Your task to perform on an android device: Add "apple airpods pro" to the cart on bestbuy.com Image 0: 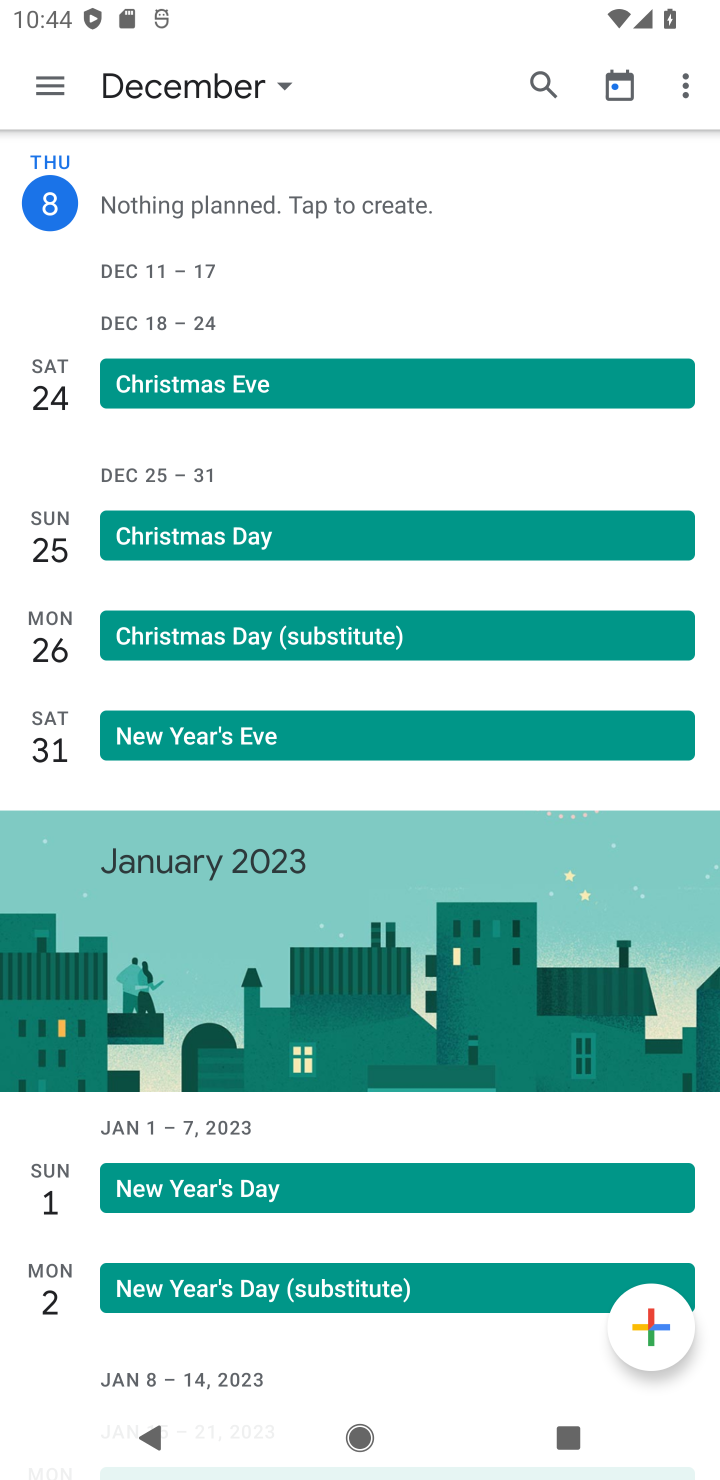
Step 0: press home button
Your task to perform on an android device: Add "apple airpods pro" to the cart on bestbuy.com Image 1: 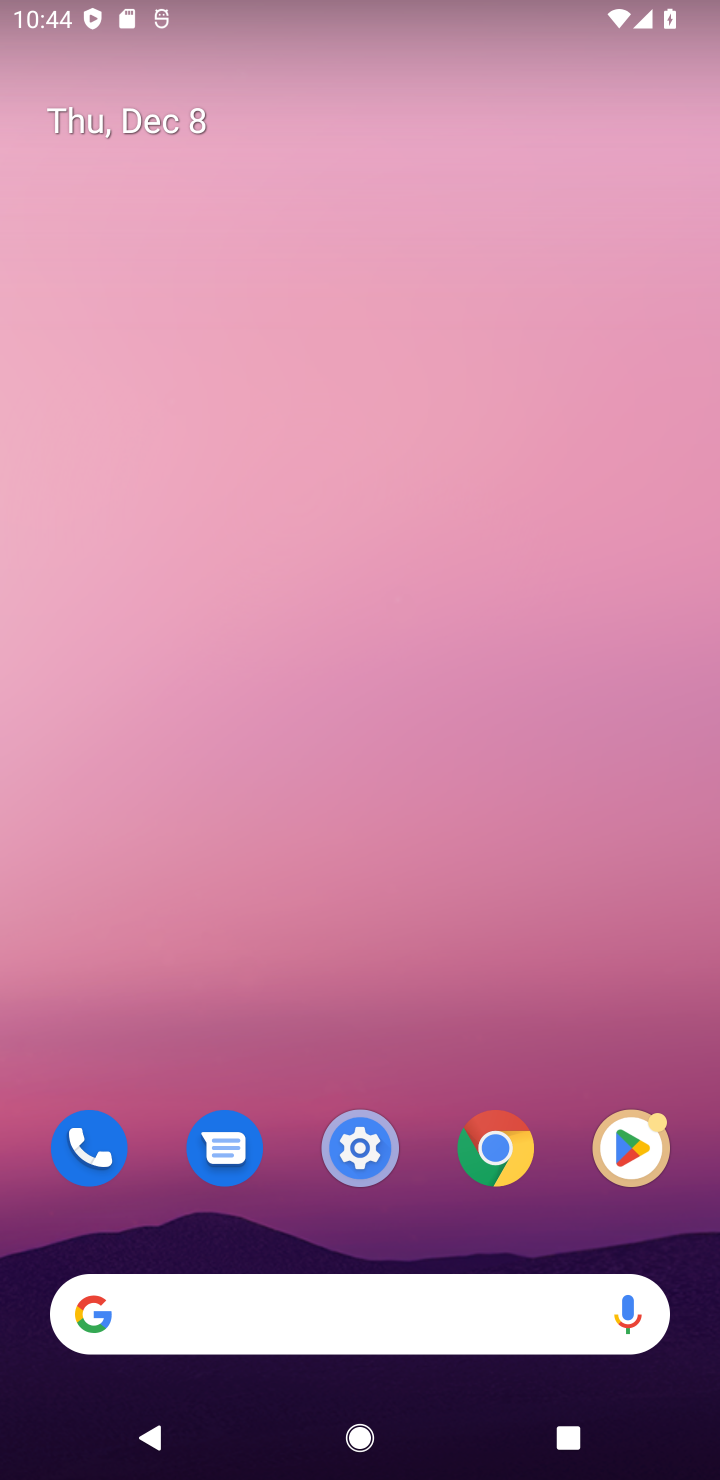
Step 1: click (310, 1312)
Your task to perform on an android device: Add "apple airpods pro" to the cart on bestbuy.com Image 2: 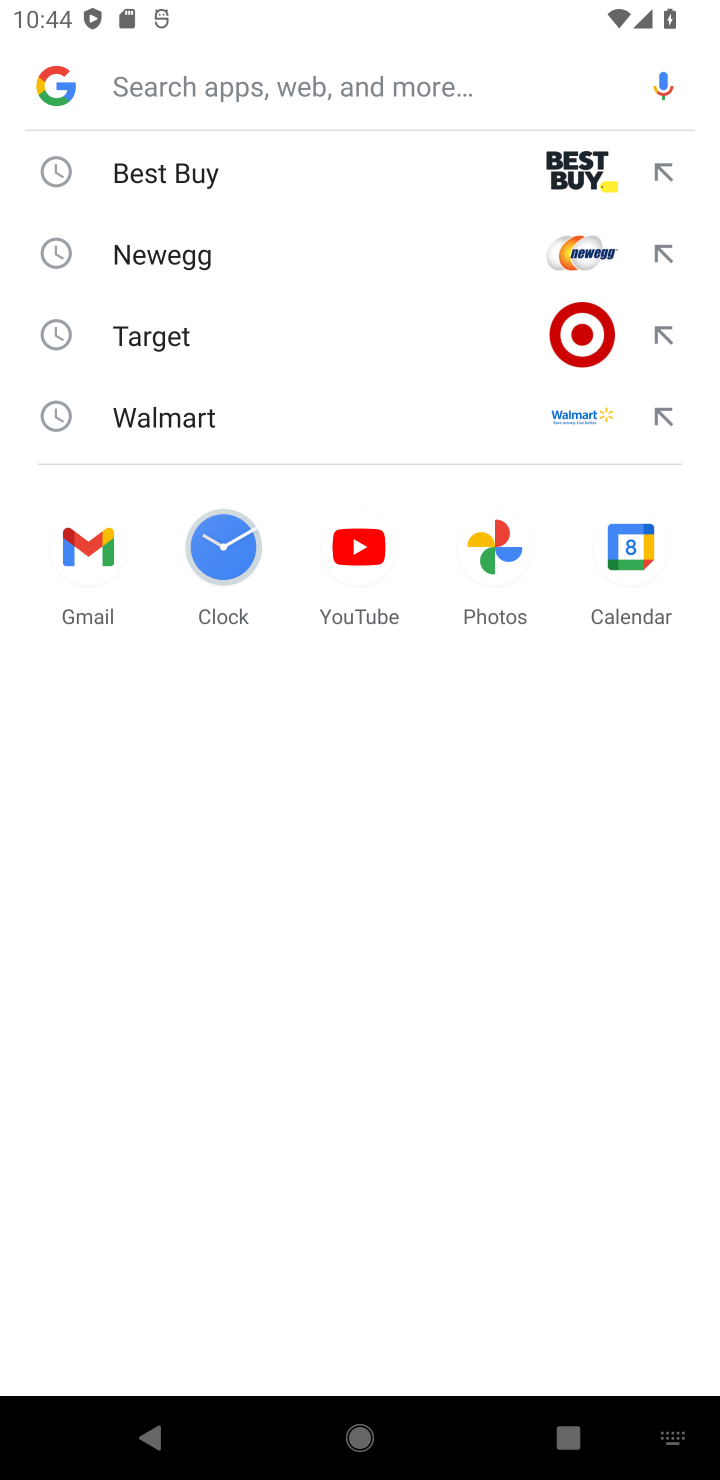
Step 2: click (133, 166)
Your task to perform on an android device: Add "apple airpods pro" to the cart on bestbuy.com Image 3: 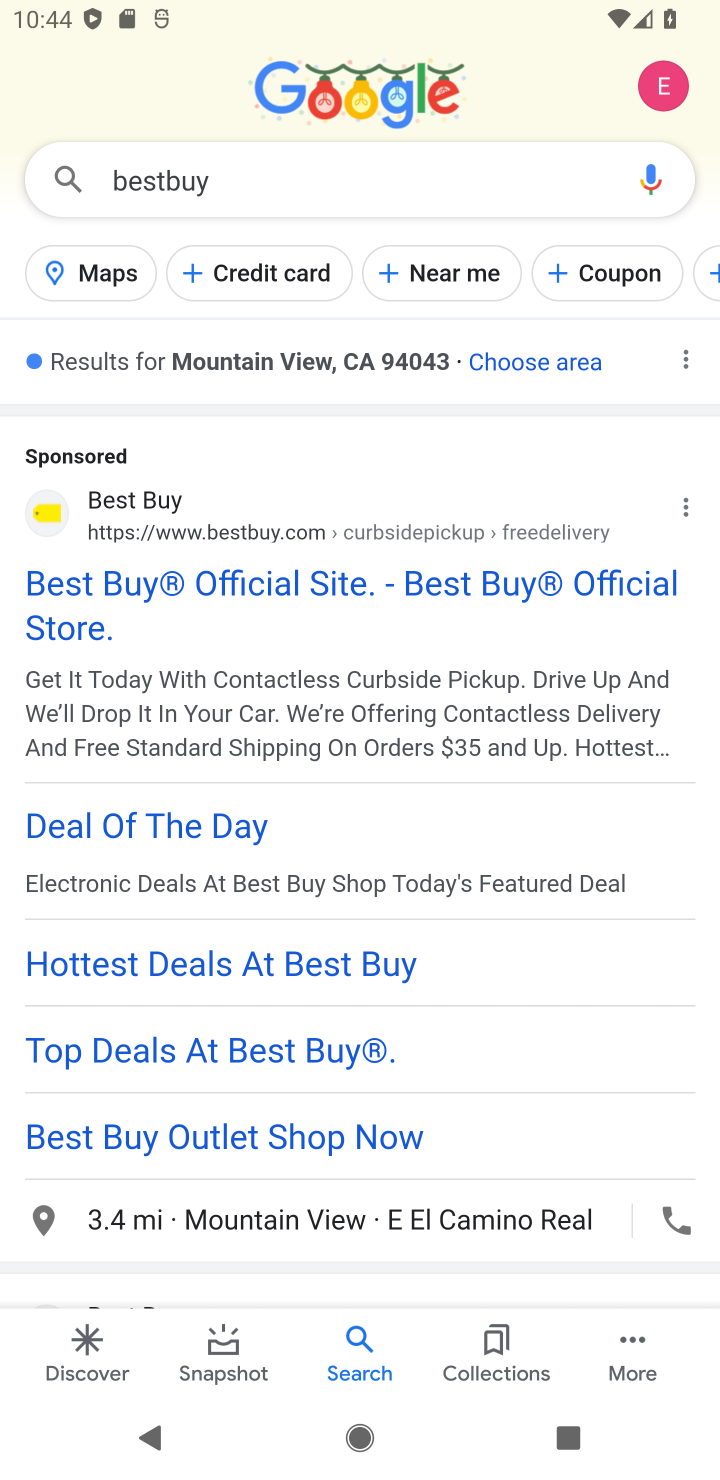
Step 3: click (140, 490)
Your task to perform on an android device: Add "apple airpods pro" to the cart on bestbuy.com Image 4: 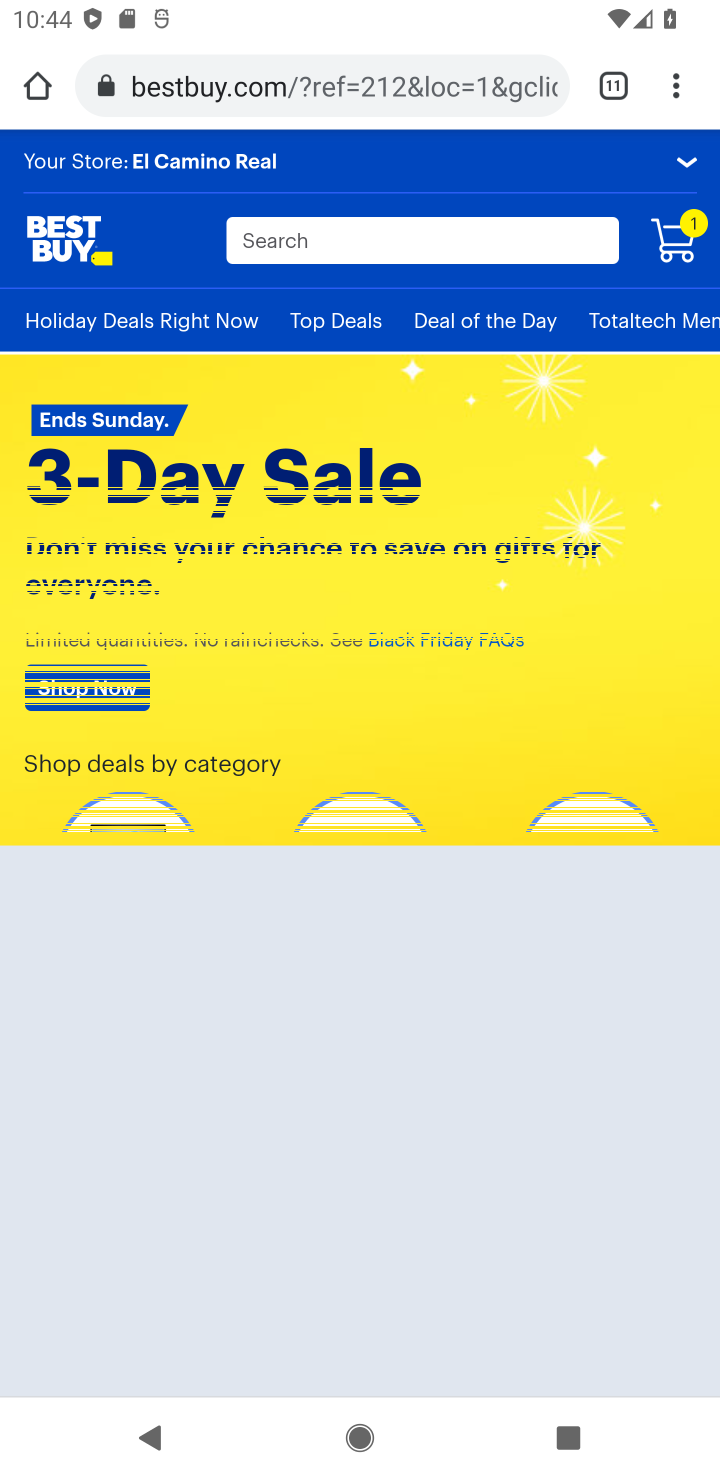
Step 4: type ""
Your task to perform on an android device: Add "apple airpods pro" to the cart on bestbuy.com Image 5: 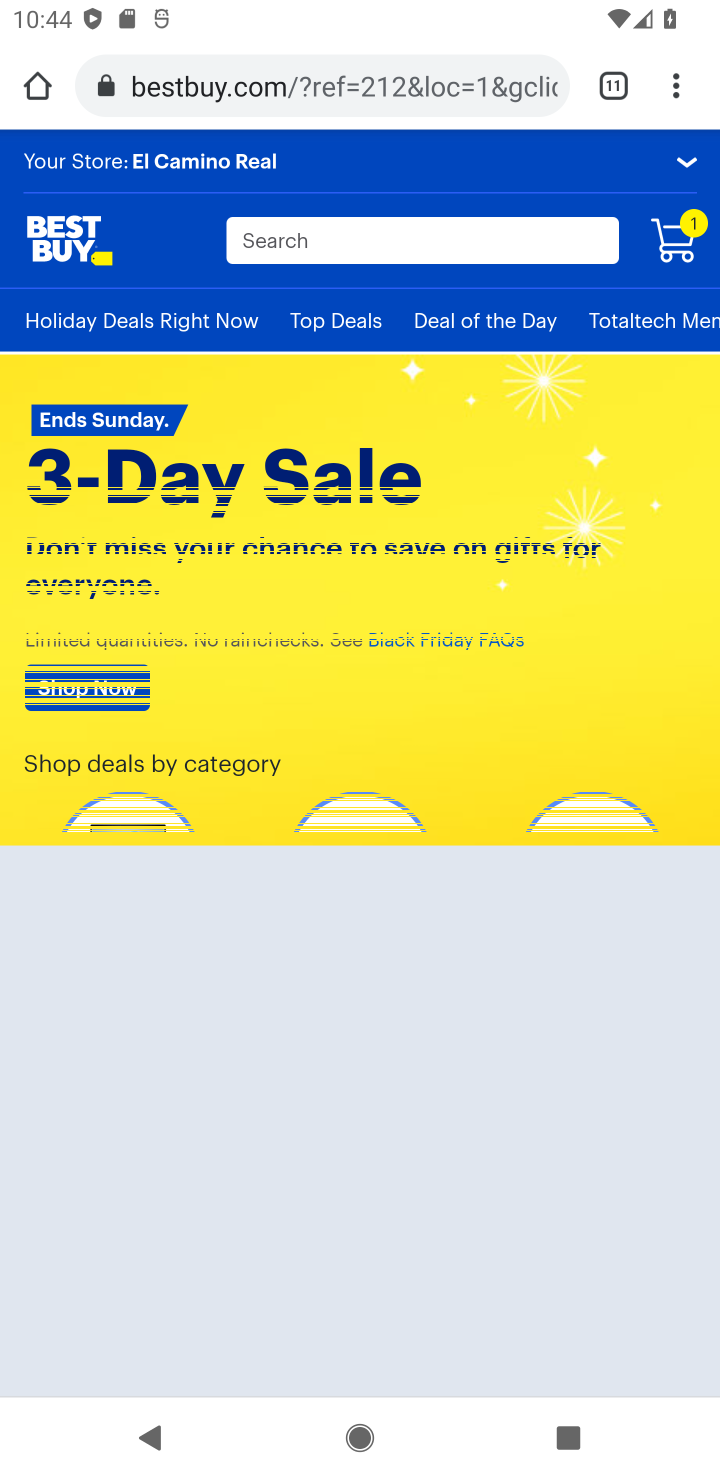
Step 5: click (358, 232)
Your task to perform on an android device: Add "apple airpods pro" to the cart on bestbuy.com Image 6: 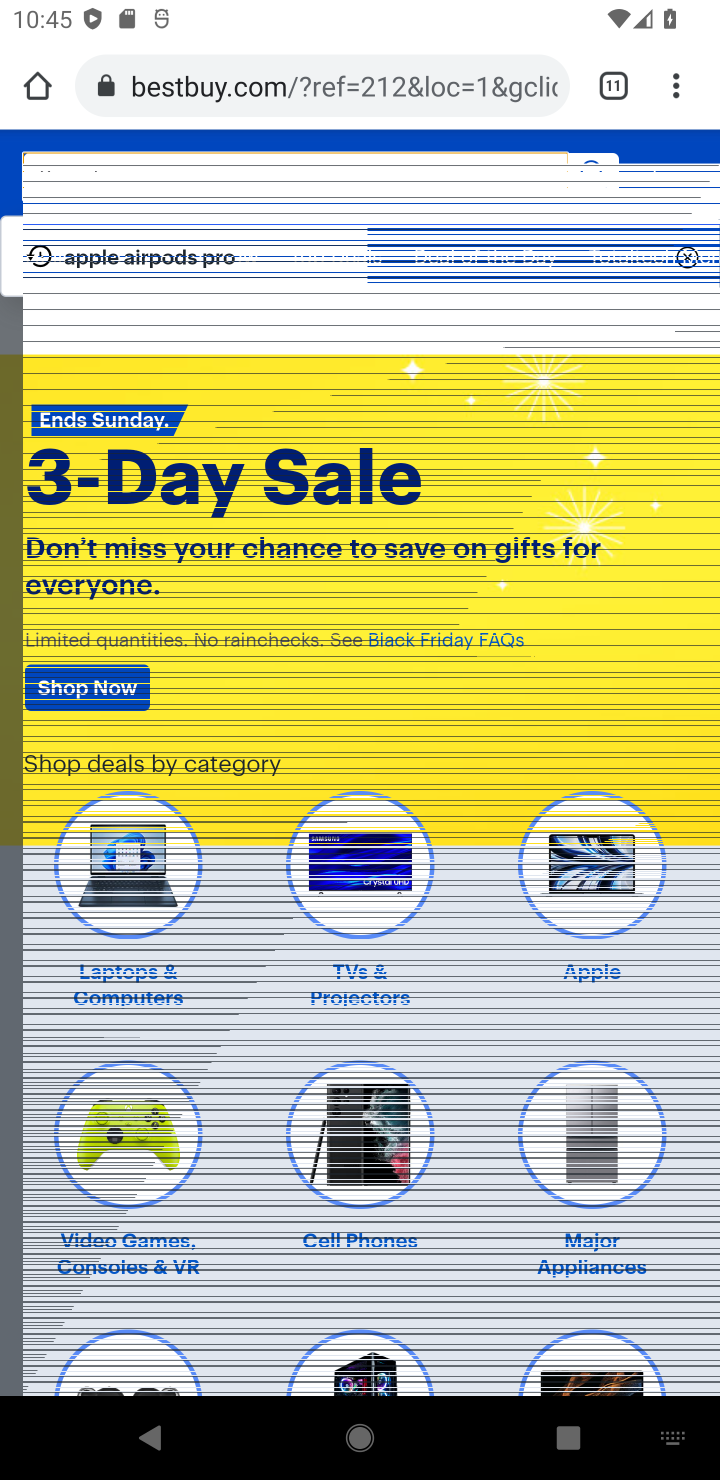
Step 6: type "apple airpods pro"
Your task to perform on an android device: Add "apple airpods pro" to the cart on bestbuy.com Image 7: 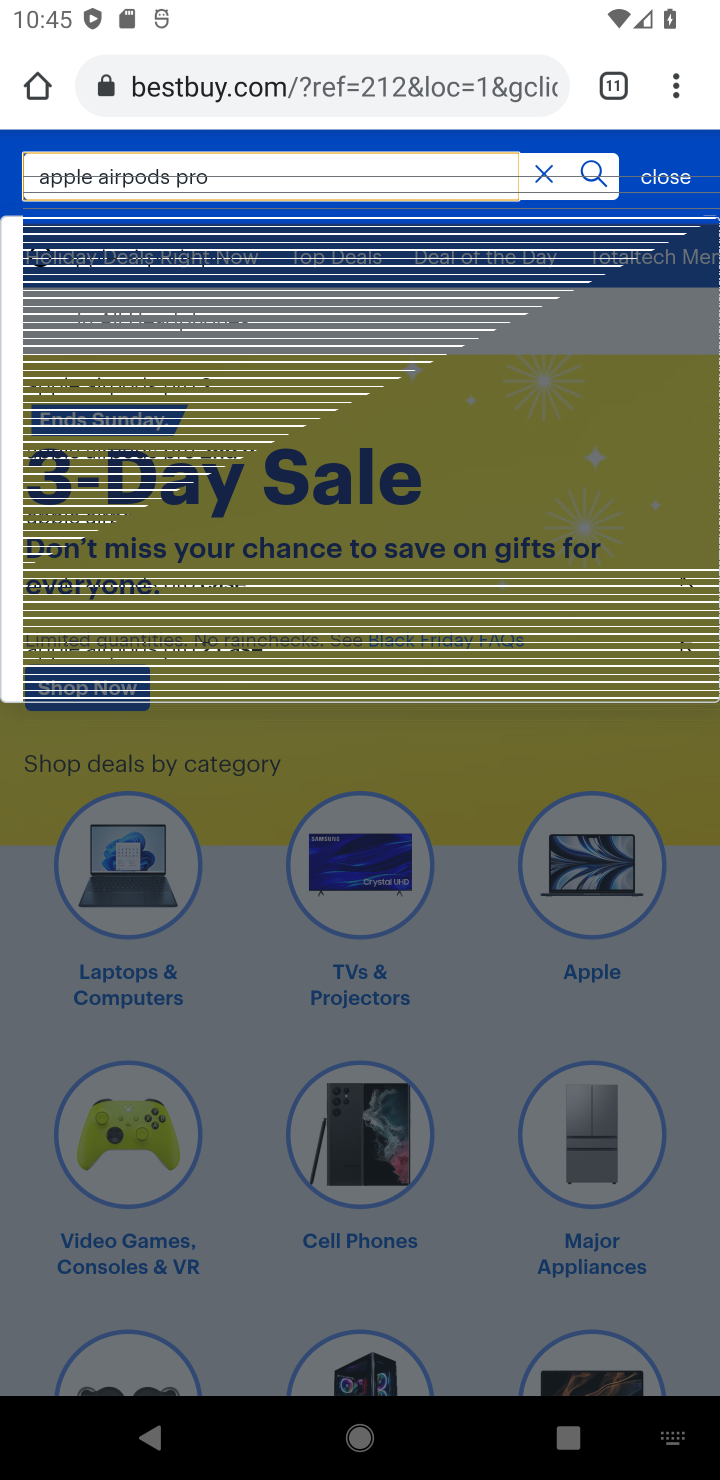
Step 7: click (581, 162)
Your task to perform on an android device: Add "apple airpods pro" to the cart on bestbuy.com Image 8: 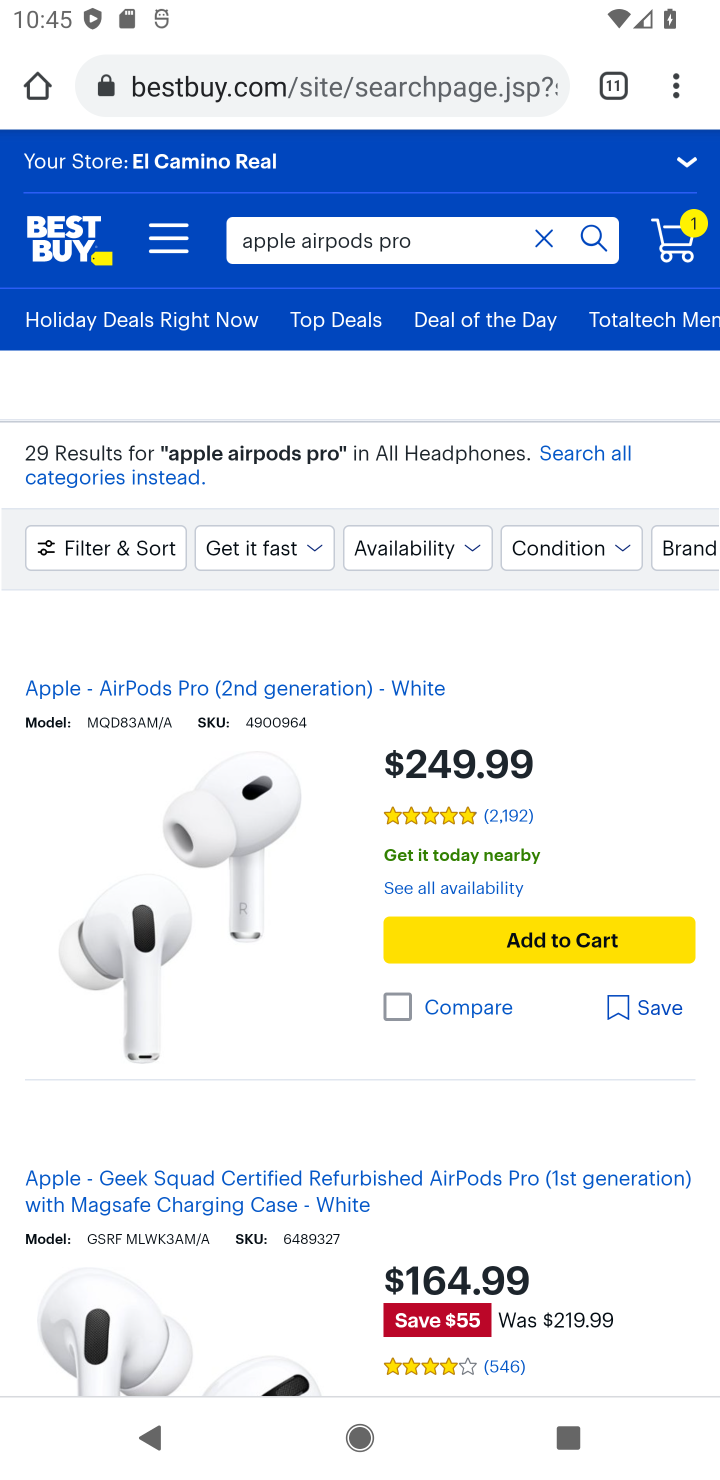
Step 8: click (535, 934)
Your task to perform on an android device: Add "apple airpods pro" to the cart on bestbuy.com Image 9: 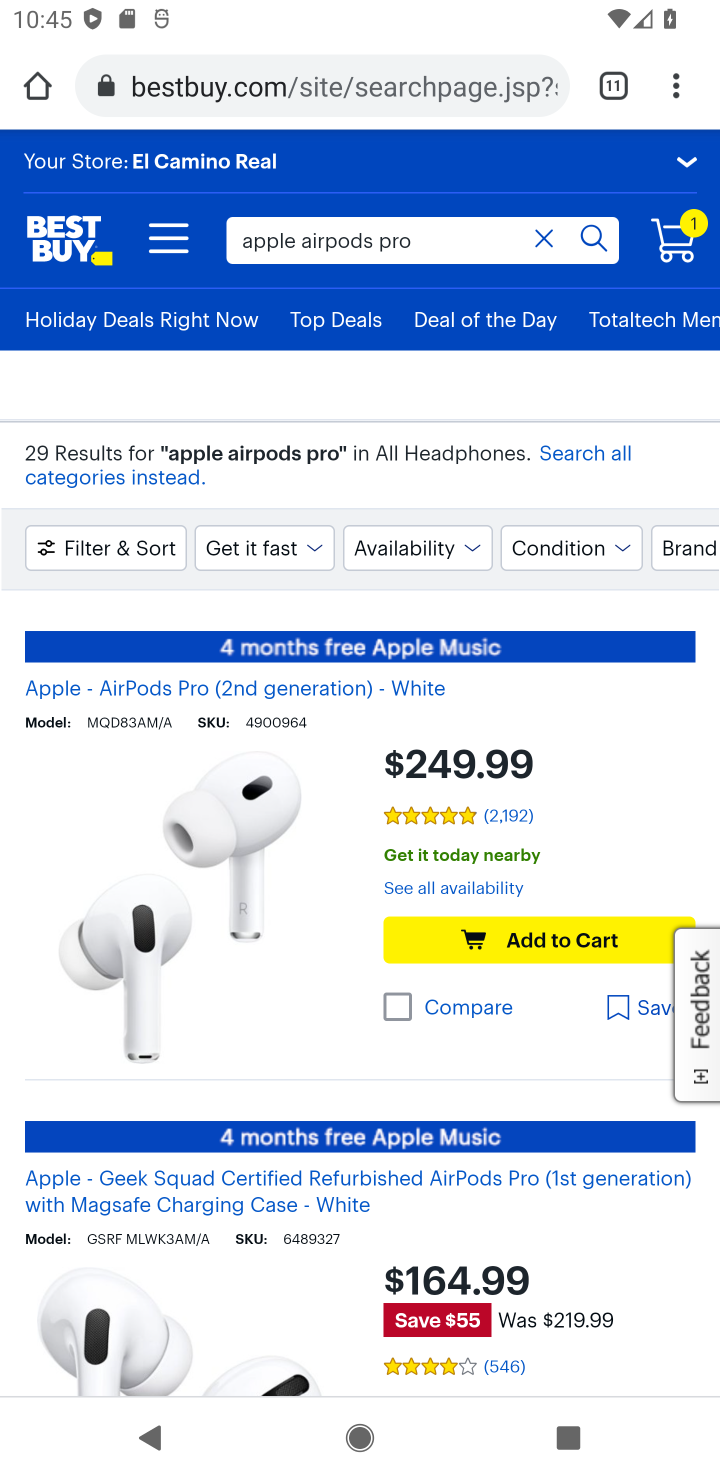
Step 9: click (564, 937)
Your task to perform on an android device: Add "apple airpods pro" to the cart on bestbuy.com Image 10: 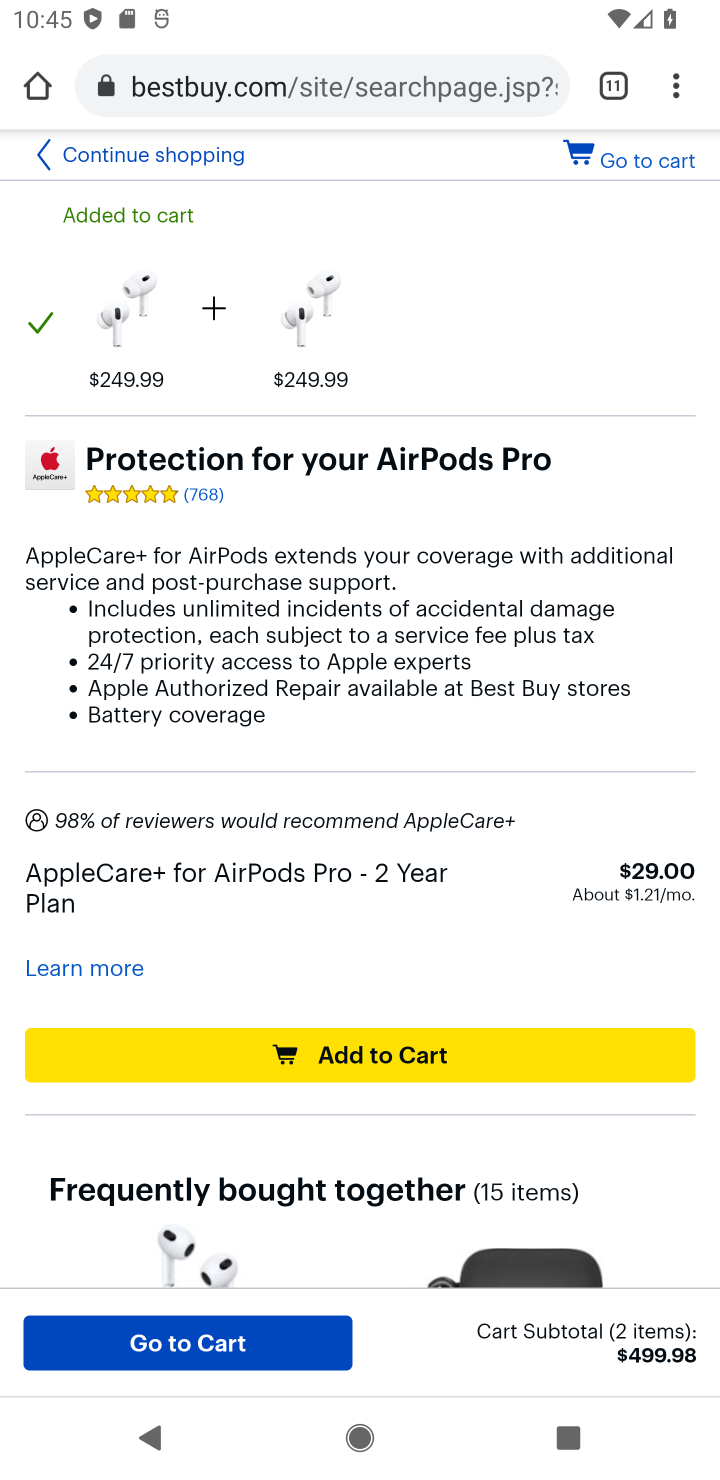
Step 10: task complete